Your task to perform on an android device: move an email to a new category in the gmail app Image 0: 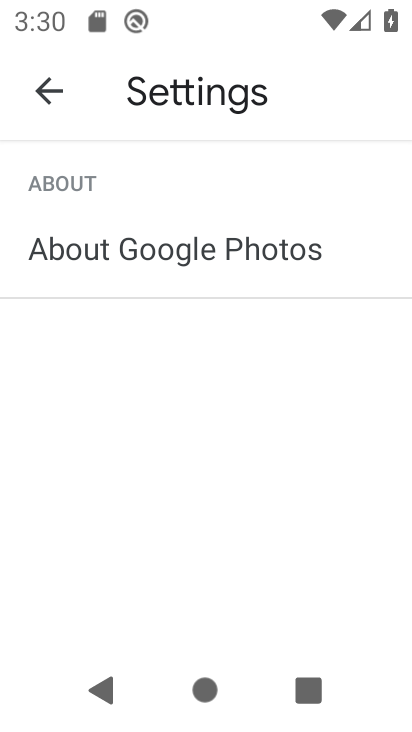
Step 0: press home button
Your task to perform on an android device: move an email to a new category in the gmail app Image 1: 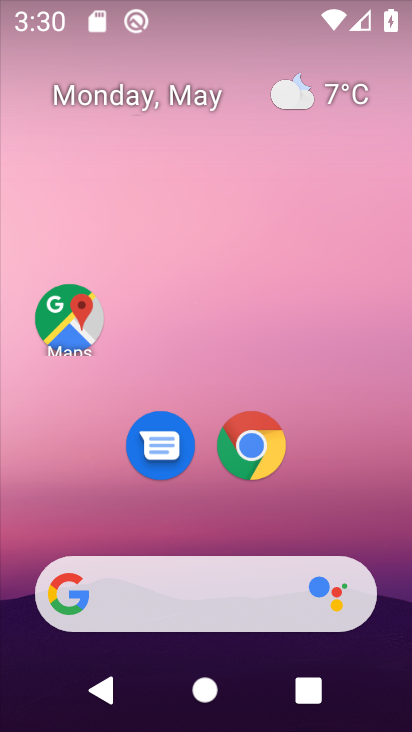
Step 1: drag from (296, 541) to (249, 91)
Your task to perform on an android device: move an email to a new category in the gmail app Image 2: 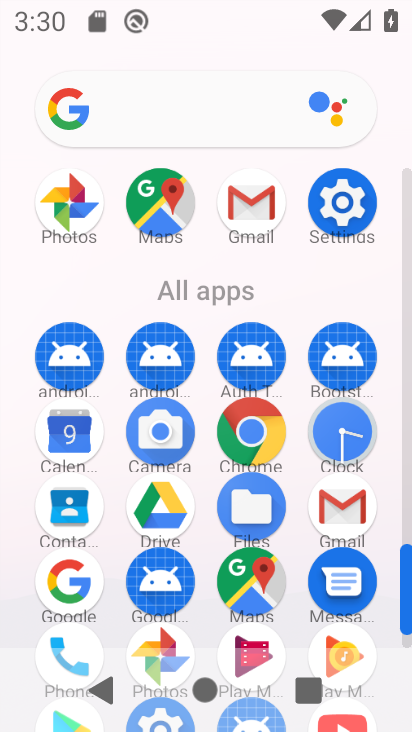
Step 2: click (235, 223)
Your task to perform on an android device: move an email to a new category in the gmail app Image 3: 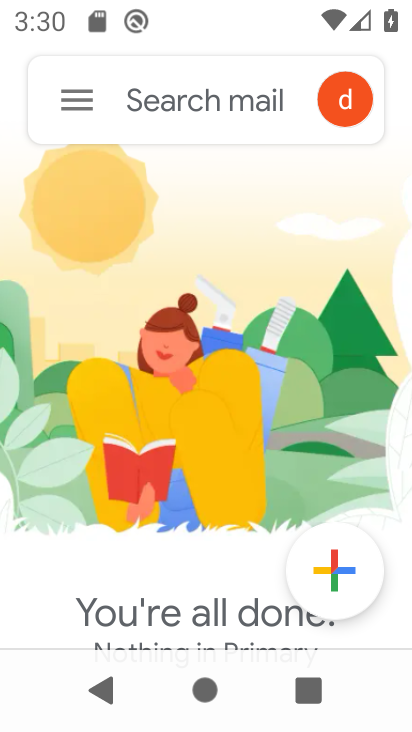
Step 3: click (70, 114)
Your task to perform on an android device: move an email to a new category in the gmail app Image 4: 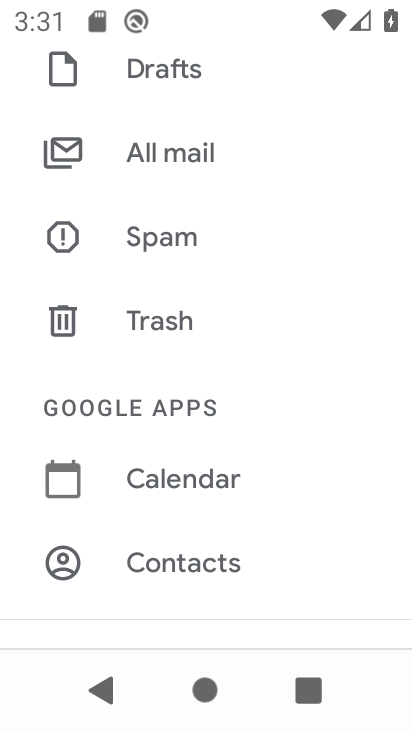
Step 4: click (149, 163)
Your task to perform on an android device: move an email to a new category in the gmail app Image 5: 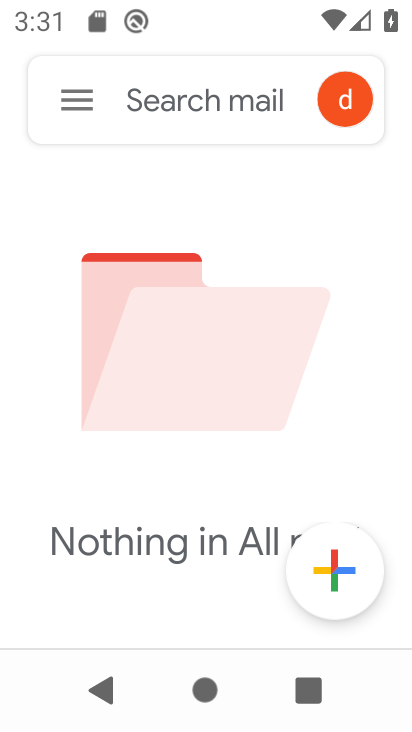
Step 5: task complete